Your task to perform on an android device: check google app version Image 0: 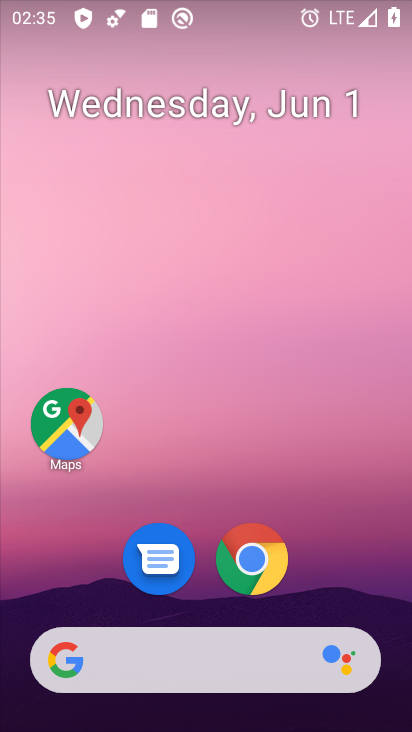
Step 0: press home button
Your task to perform on an android device: check google app version Image 1: 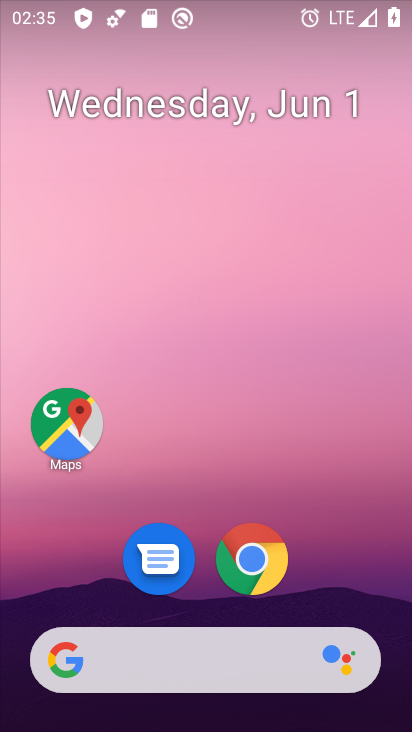
Step 1: click (386, 70)
Your task to perform on an android device: check google app version Image 2: 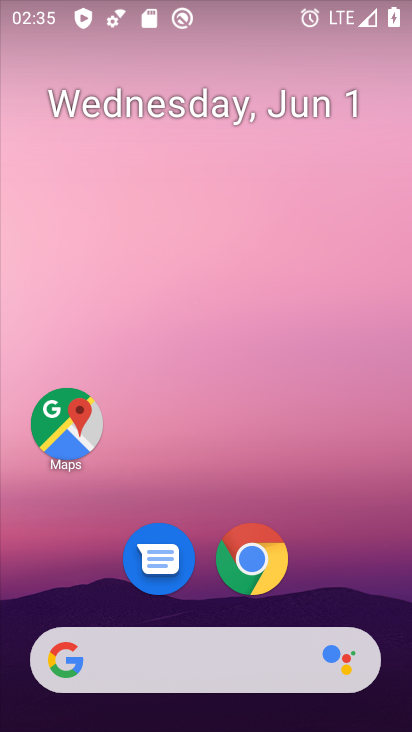
Step 2: drag from (330, 599) to (351, 76)
Your task to perform on an android device: check google app version Image 3: 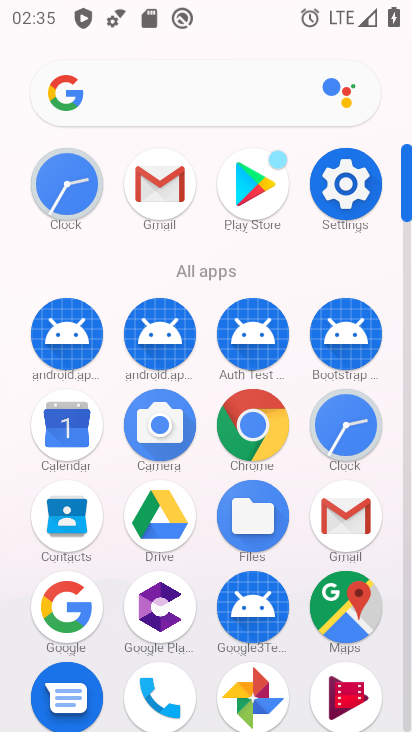
Step 3: click (63, 602)
Your task to perform on an android device: check google app version Image 4: 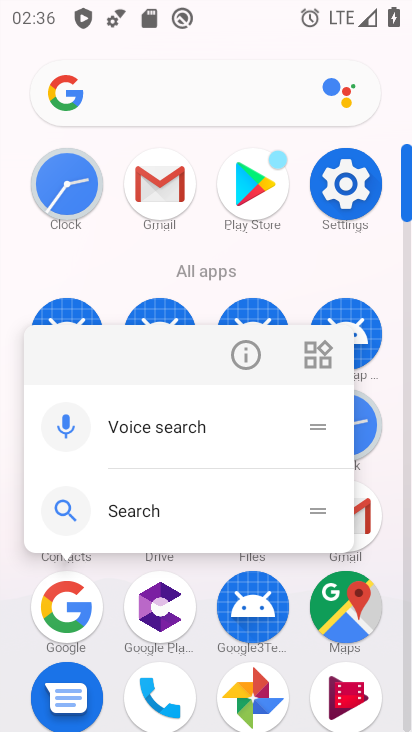
Step 4: click (255, 357)
Your task to perform on an android device: check google app version Image 5: 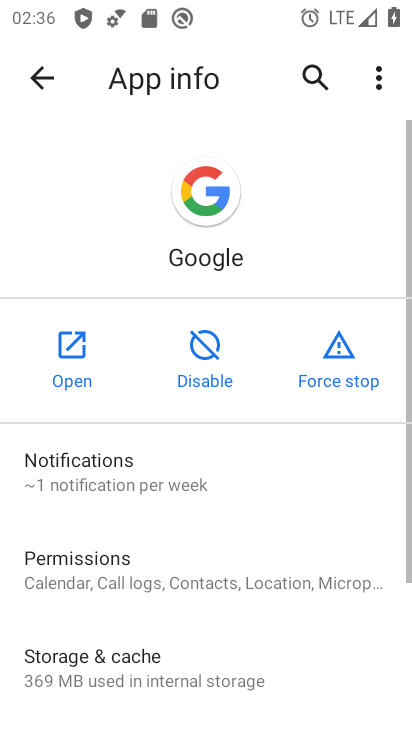
Step 5: drag from (285, 571) to (268, 81)
Your task to perform on an android device: check google app version Image 6: 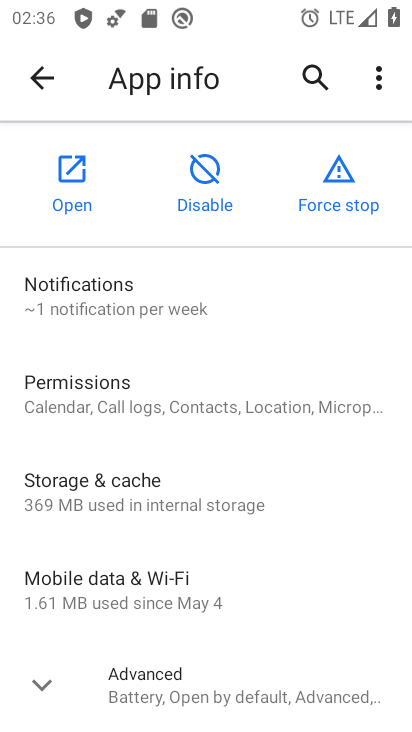
Step 6: click (120, 671)
Your task to perform on an android device: check google app version Image 7: 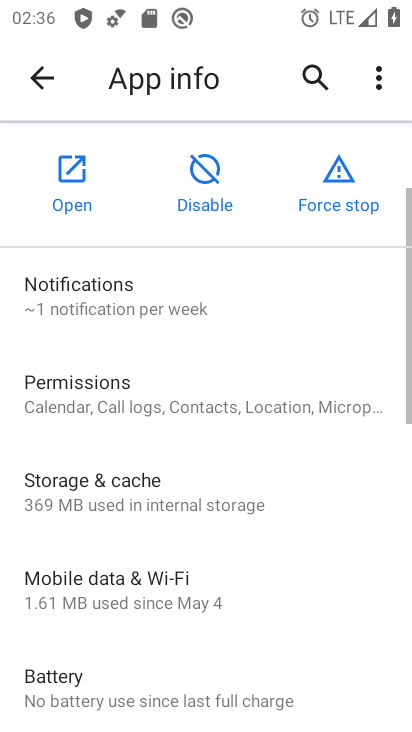
Step 7: task complete